Your task to perform on an android device: visit the assistant section in the google photos Image 0: 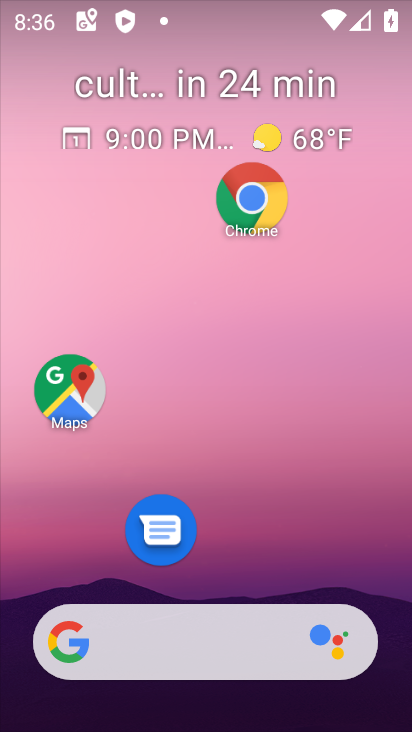
Step 0: drag from (234, 551) to (234, 117)
Your task to perform on an android device: visit the assistant section in the google photos Image 1: 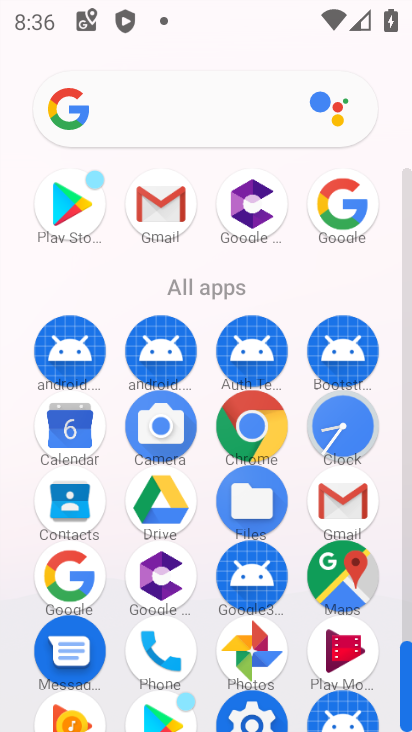
Step 1: drag from (196, 528) to (214, 237)
Your task to perform on an android device: visit the assistant section in the google photos Image 2: 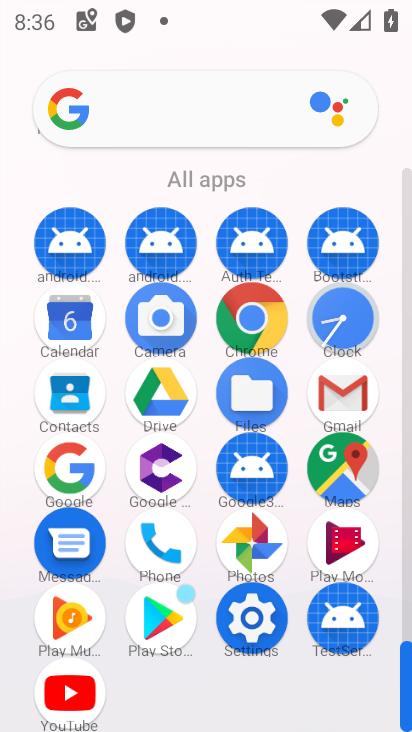
Step 2: click (276, 543)
Your task to perform on an android device: visit the assistant section in the google photos Image 3: 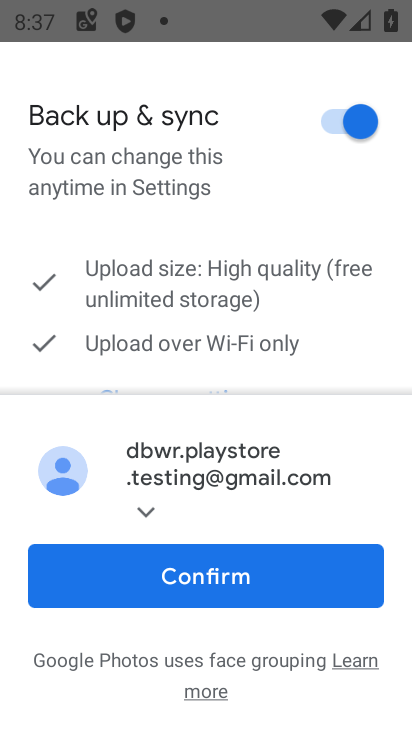
Step 3: click (256, 592)
Your task to perform on an android device: visit the assistant section in the google photos Image 4: 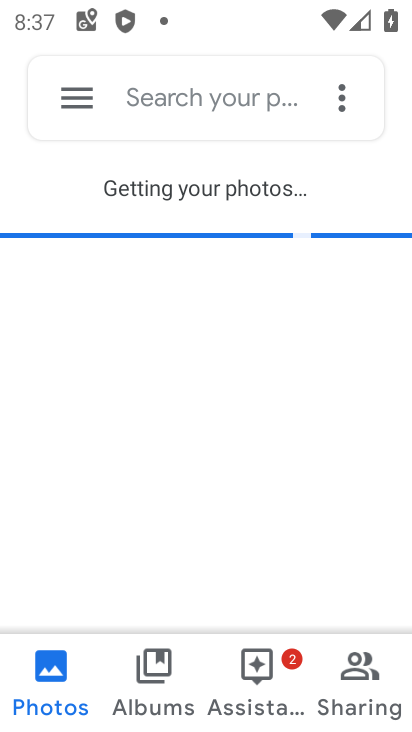
Step 4: click (261, 682)
Your task to perform on an android device: visit the assistant section in the google photos Image 5: 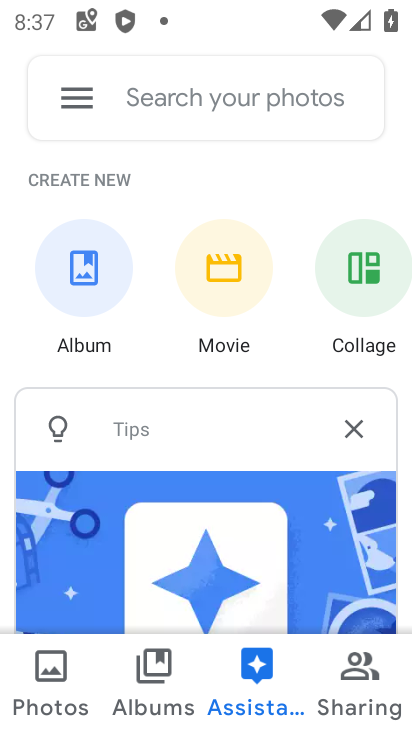
Step 5: task complete